Your task to perform on an android device: turn on data saver in the chrome app Image 0: 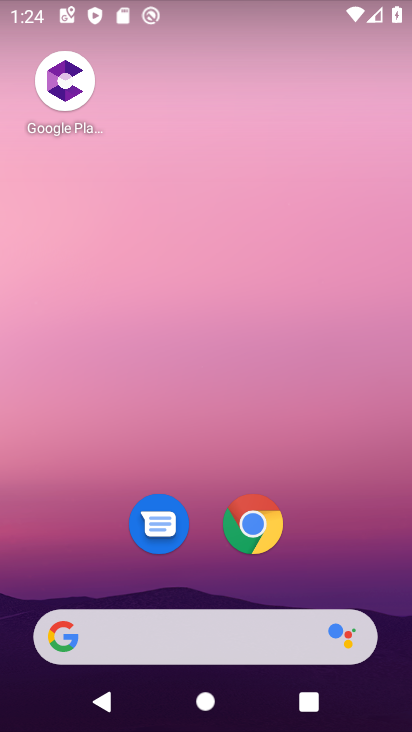
Step 0: click (259, 516)
Your task to perform on an android device: turn on data saver in the chrome app Image 1: 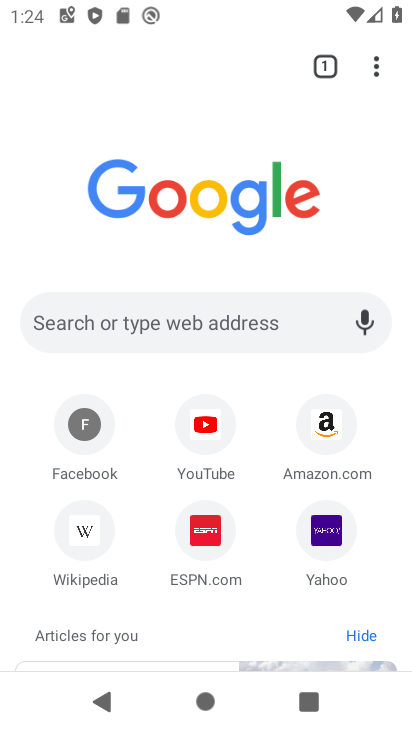
Step 1: click (371, 65)
Your task to perform on an android device: turn on data saver in the chrome app Image 2: 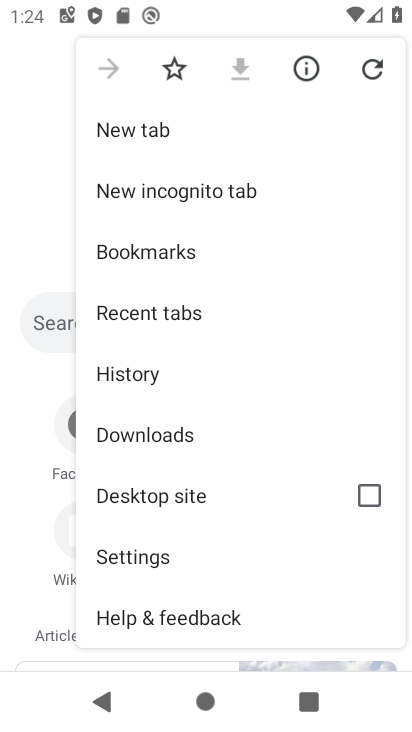
Step 2: click (190, 548)
Your task to perform on an android device: turn on data saver in the chrome app Image 3: 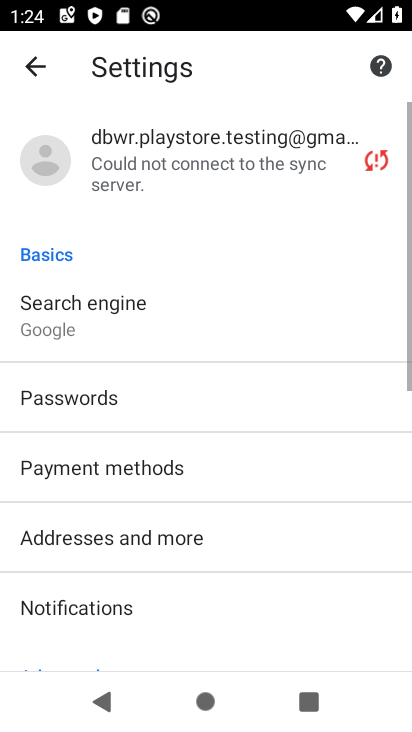
Step 3: drag from (194, 534) to (239, 183)
Your task to perform on an android device: turn on data saver in the chrome app Image 4: 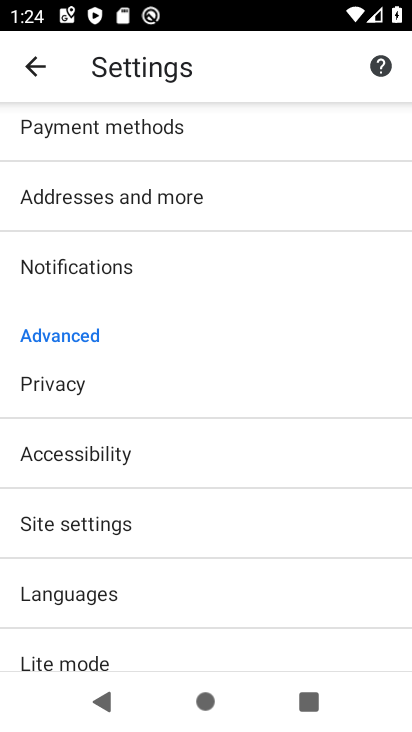
Step 4: click (214, 519)
Your task to perform on an android device: turn on data saver in the chrome app Image 5: 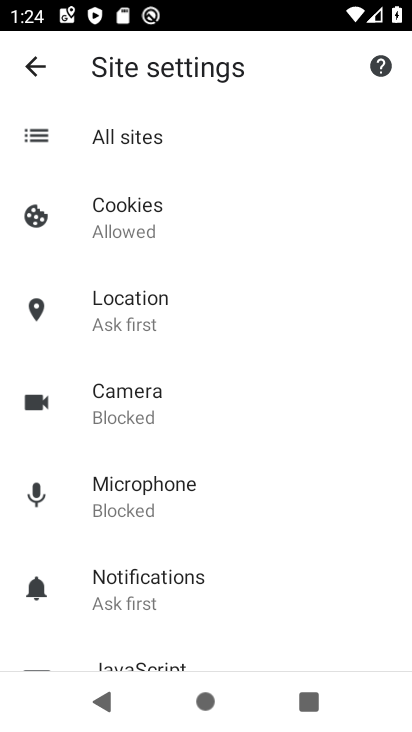
Step 5: click (44, 64)
Your task to perform on an android device: turn on data saver in the chrome app Image 6: 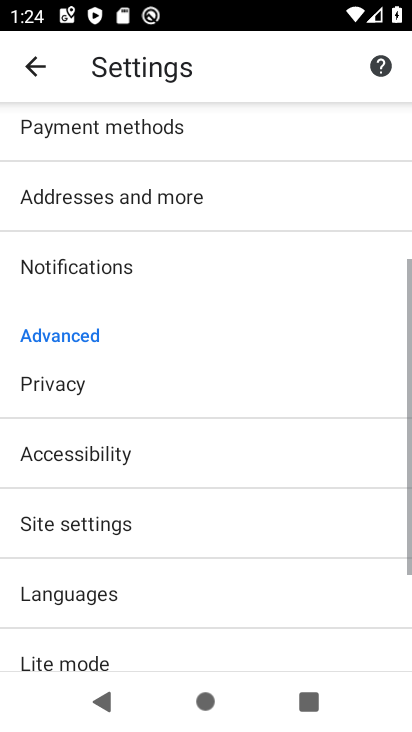
Step 6: drag from (204, 538) to (209, 205)
Your task to perform on an android device: turn on data saver in the chrome app Image 7: 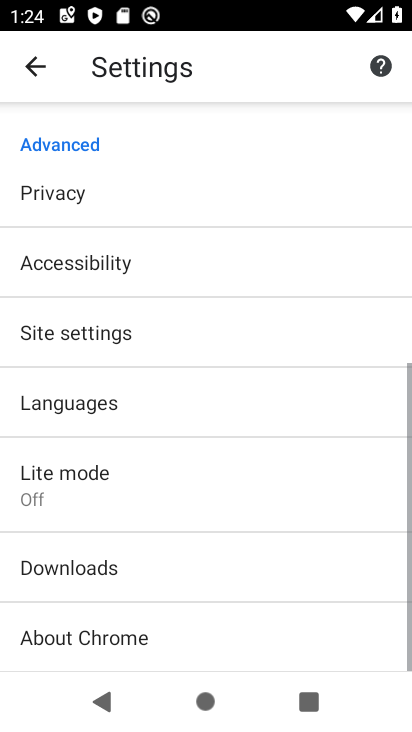
Step 7: click (141, 481)
Your task to perform on an android device: turn on data saver in the chrome app Image 8: 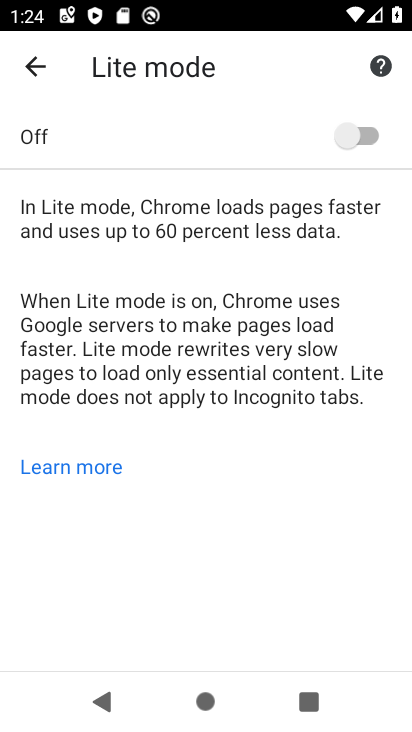
Step 8: click (354, 133)
Your task to perform on an android device: turn on data saver in the chrome app Image 9: 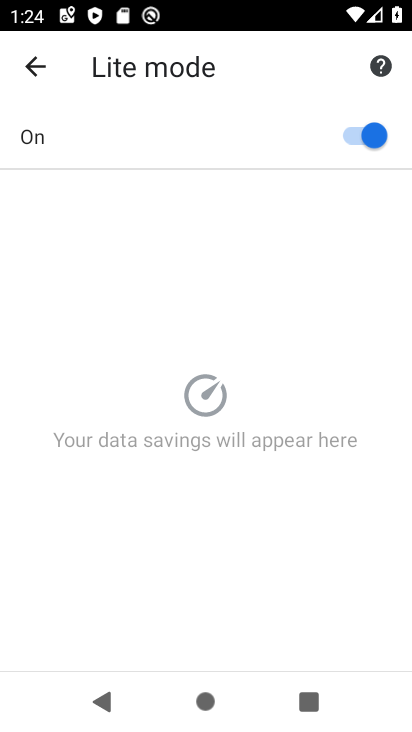
Step 9: task complete